Your task to perform on an android device: choose inbox layout in the gmail app Image 0: 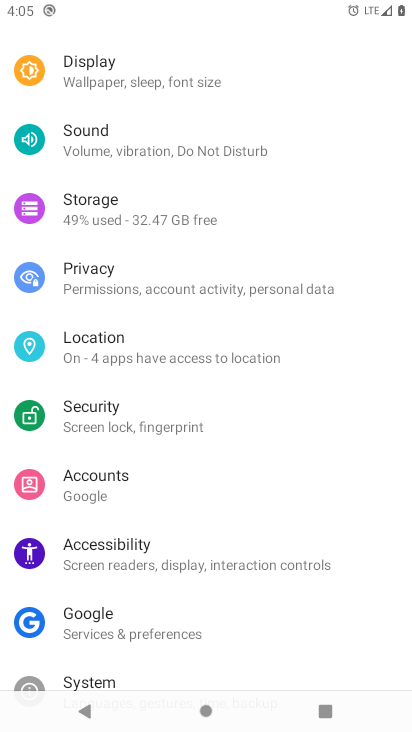
Step 0: press home button
Your task to perform on an android device: choose inbox layout in the gmail app Image 1: 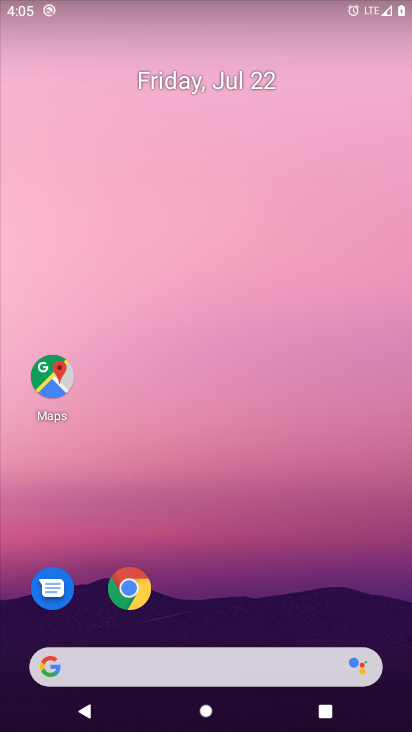
Step 1: drag from (314, 611) to (340, 76)
Your task to perform on an android device: choose inbox layout in the gmail app Image 2: 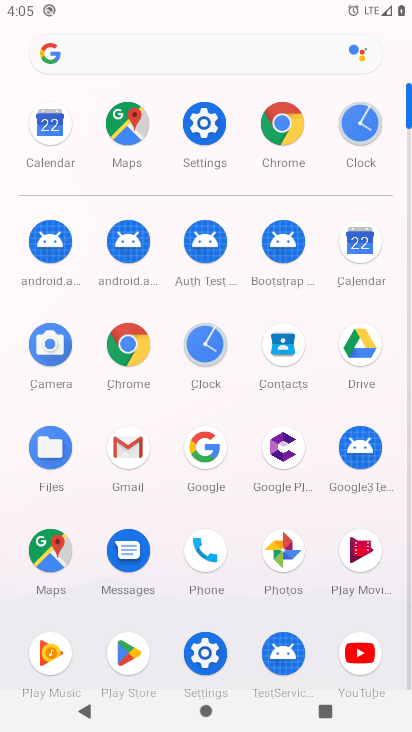
Step 2: click (134, 437)
Your task to perform on an android device: choose inbox layout in the gmail app Image 3: 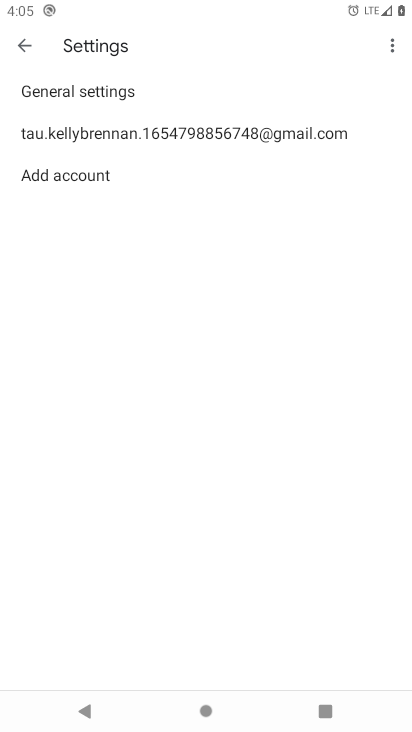
Step 3: click (108, 133)
Your task to perform on an android device: choose inbox layout in the gmail app Image 4: 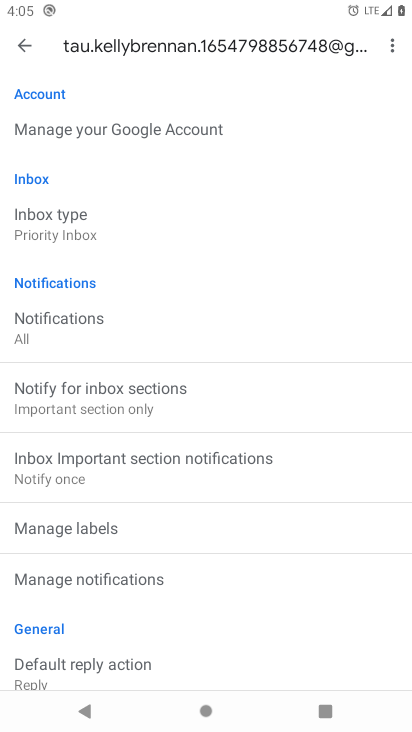
Step 4: click (47, 234)
Your task to perform on an android device: choose inbox layout in the gmail app Image 5: 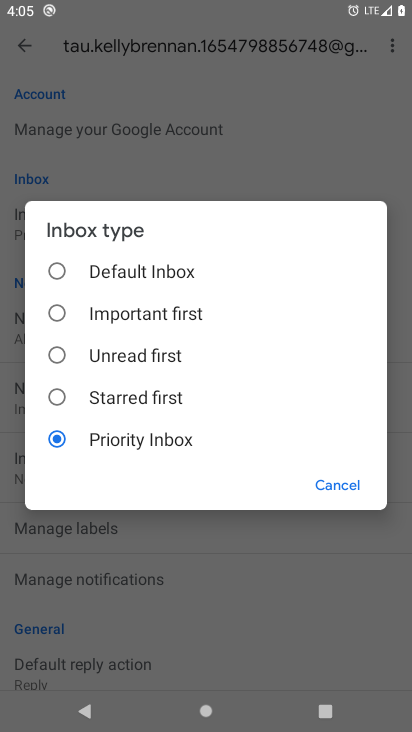
Step 5: click (166, 277)
Your task to perform on an android device: choose inbox layout in the gmail app Image 6: 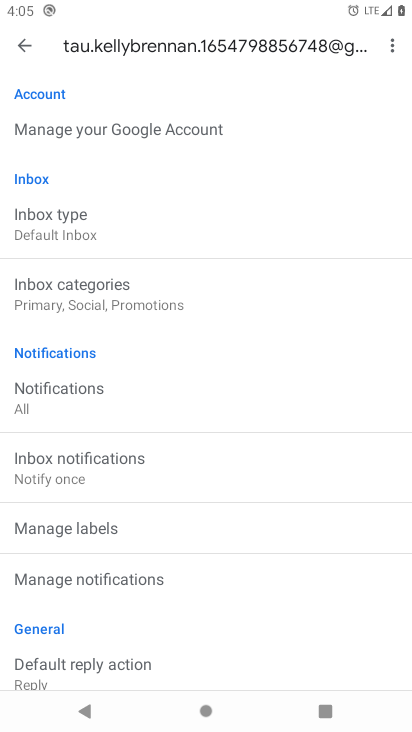
Step 6: task complete